Your task to perform on an android device: turn on notifications settings in the gmail app Image 0: 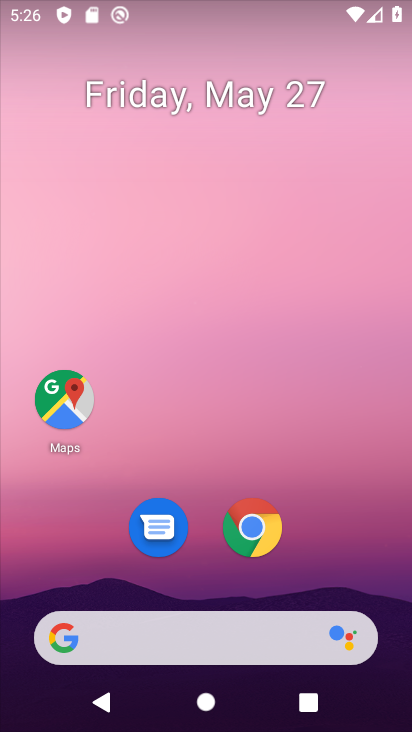
Step 0: drag from (329, 559) to (227, 151)
Your task to perform on an android device: turn on notifications settings in the gmail app Image 1: 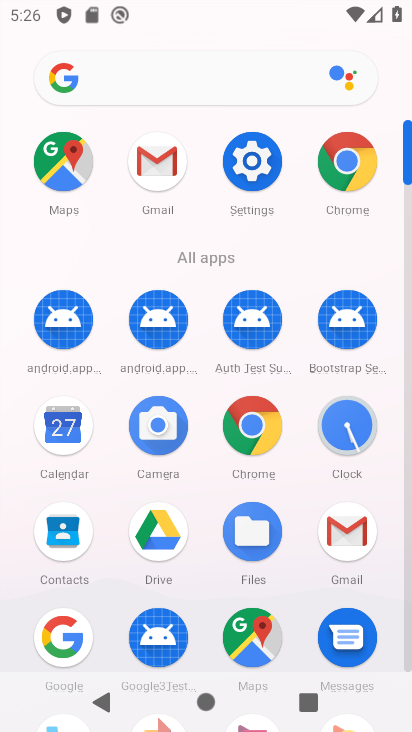
Step 1: click (261, 175)
Your task to perform on an android device: turn on notifications settings in the gmail app Image 2: 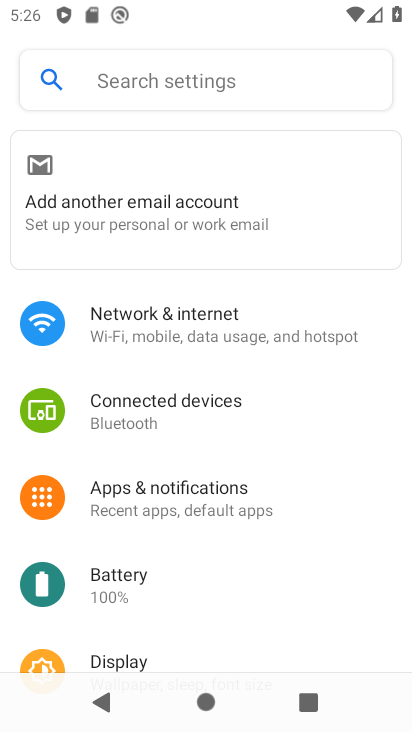
Step 2: click (187, 358)
Your task to perform on an android device: turn on notifications settings in the gmail app Image 3: 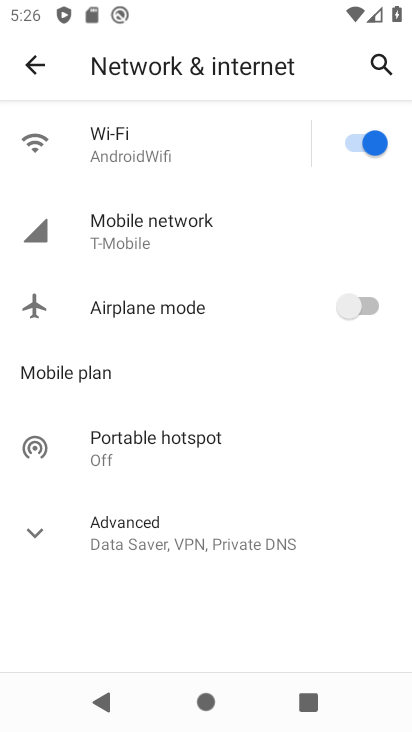
Step 3: press home button
Your task to perform on an android device: turn on notifications settings in the gmail app Image 4: 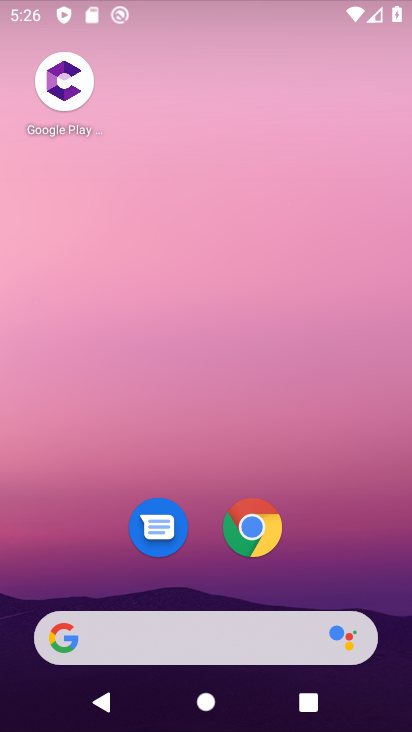
Step 4: drag from (304, 544) to (304, 177)
Your task to perform on an android device: turn on notifications settings in the gmail app Image 5: 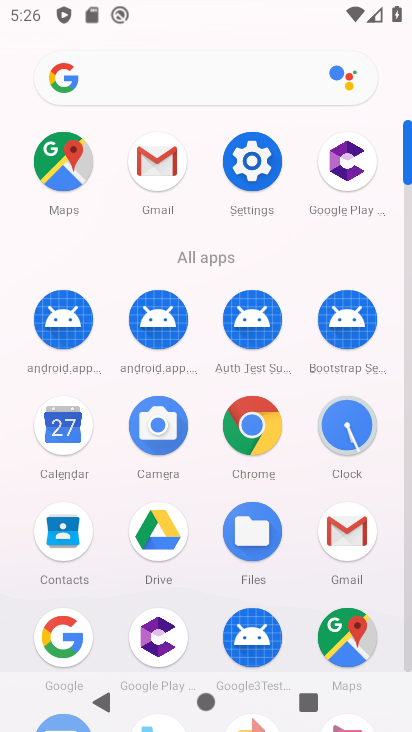
Step 5: click (351, 562)
Your task to perform on an android device: turn on notifications settings in the gmail app Image 6: 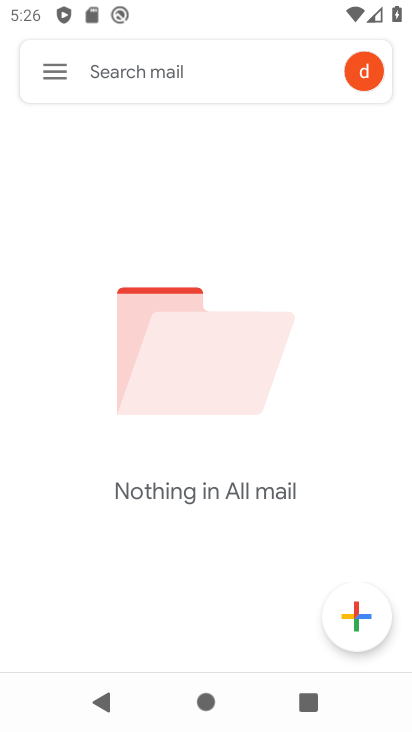
Step 6: click (53, 71)
Your task to perform on an android device: turn on notifications settings in the gmail app Image 7: 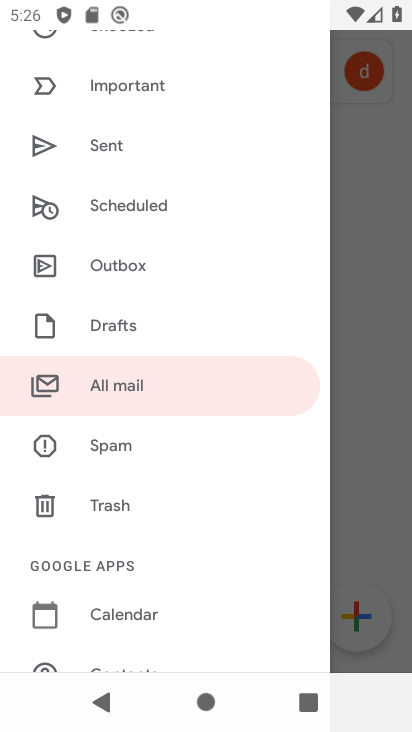
Step 7: drag from (192, 596) to (196, 169)
Your task to perform on an android device: turn on notifications settings in the gmail app Image 8: 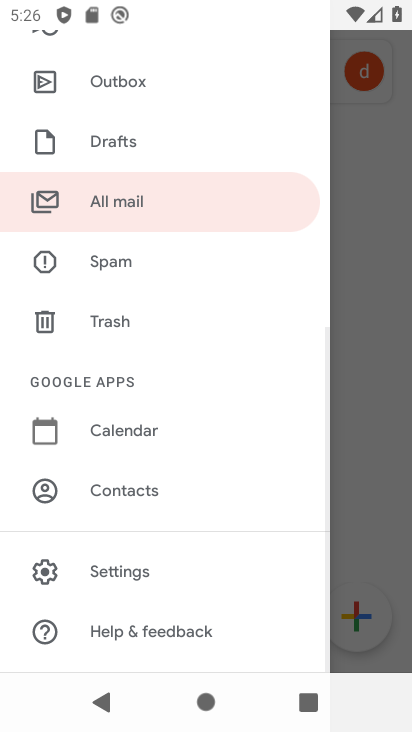
Step 8: click (127, 559)
Your task to perform on an android device: turn on notifications settings in the gmail app Image 9: 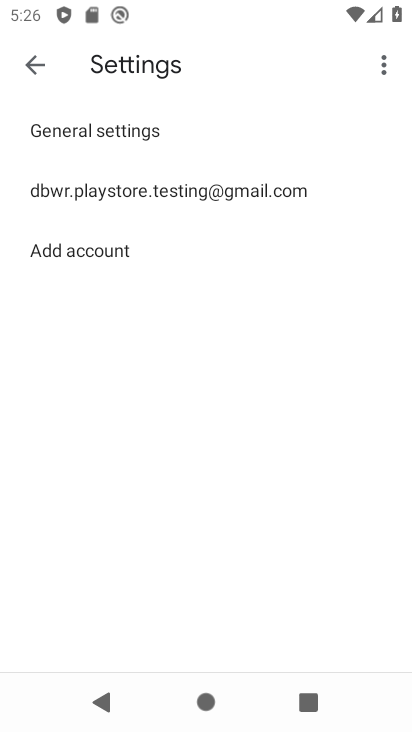
Step 9: click (194, 180)
Your task to perform on an android device: turn on notifications settings in the gmail app Image 10: 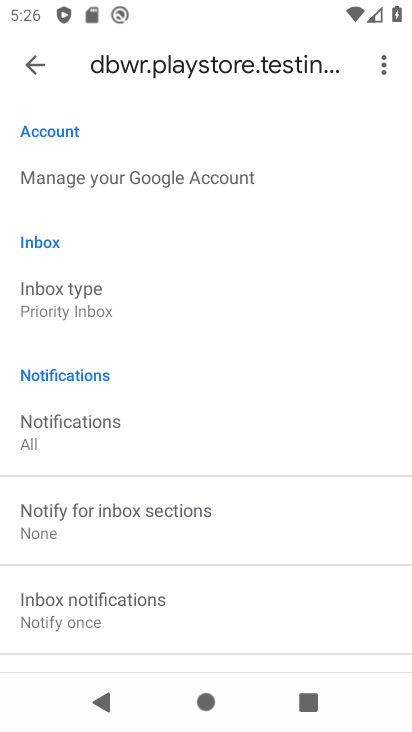
Step 10: drag from (236, 615) to (223, 304)
Your task to perform on an android device: turn on notifications settings in the gmail app Image 11: 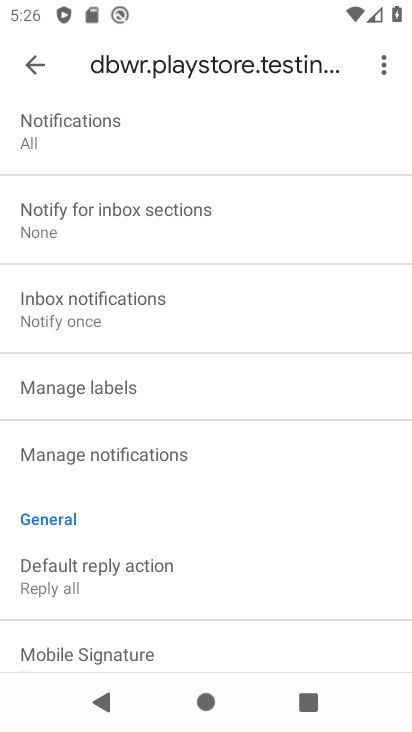
Step 11: click (152, 459)
Your task to perform on an android device: turn on notifications settings in the gmail app Image 12: 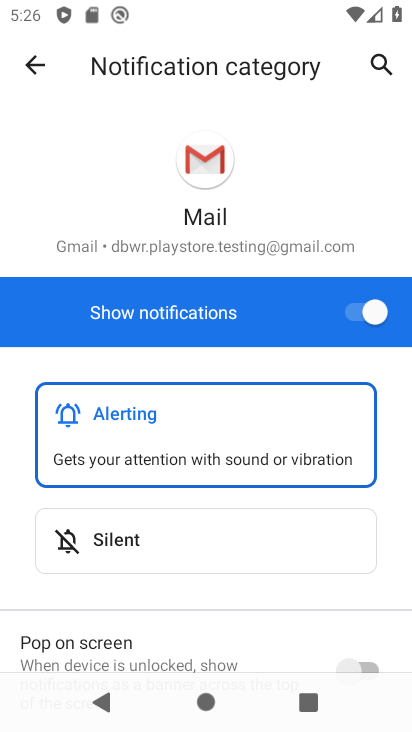
Step 12: task complete